Your task to perform on an android device: turn vacation reply on in the gmail app Image 0: 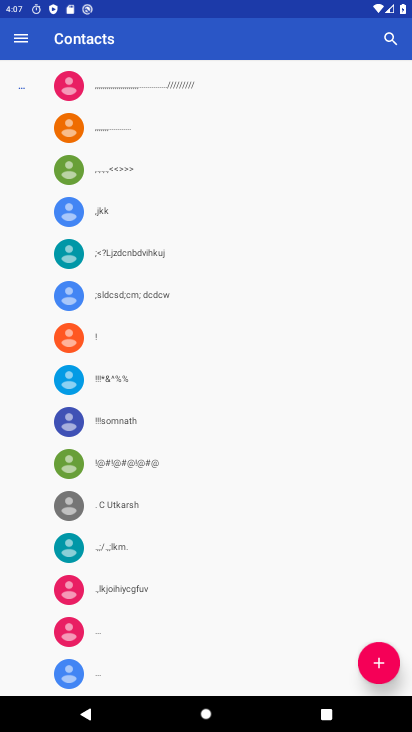
Step 0: press home button
Your task to perform on an android device: turn vacation reply on in the gmail app Image 1: 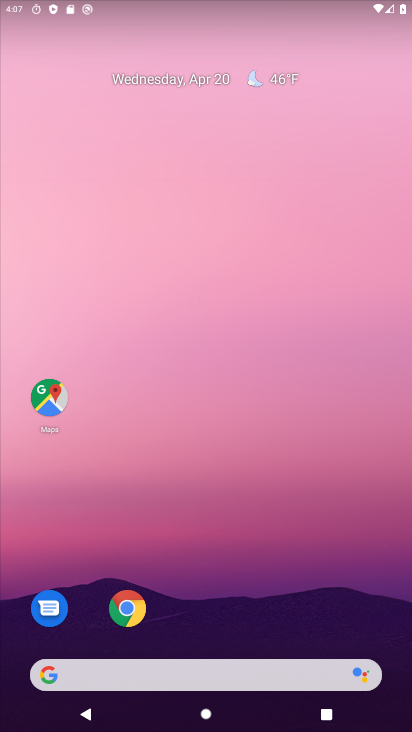
Step 1: drag from (228, 642) to (101, 13)
Your task to perform on an android device: turn vacation reply on in the gmail app Image 2: 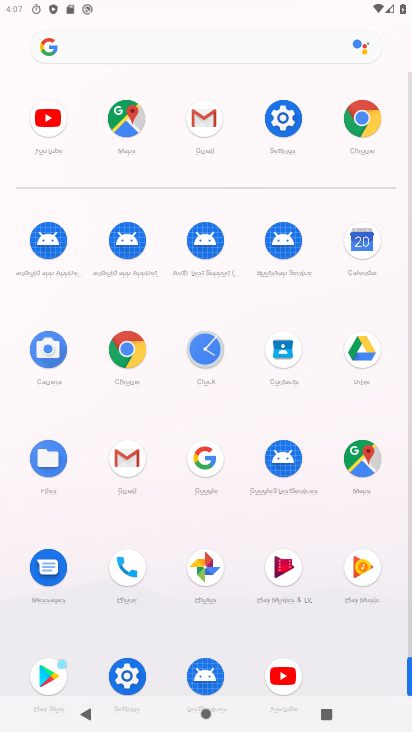
Step 2: click (124, 455)
Your task to perform on an android device: turn vacation reply on in the gmail app Image 3: 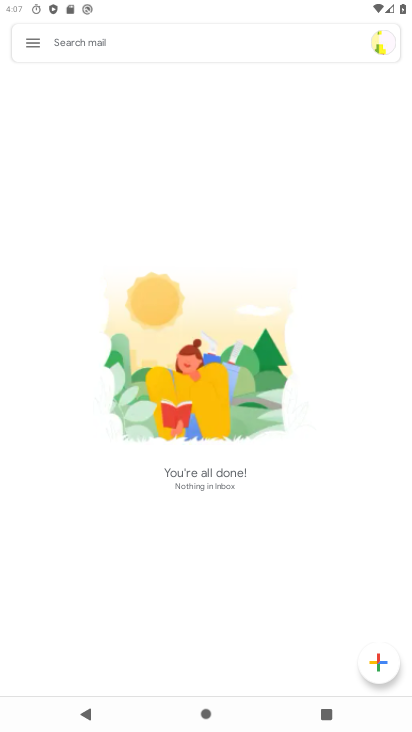
Step 3: click (34, 46)
Your task to perform on an android device: turn vacation reply on in the gmail app Image 4: 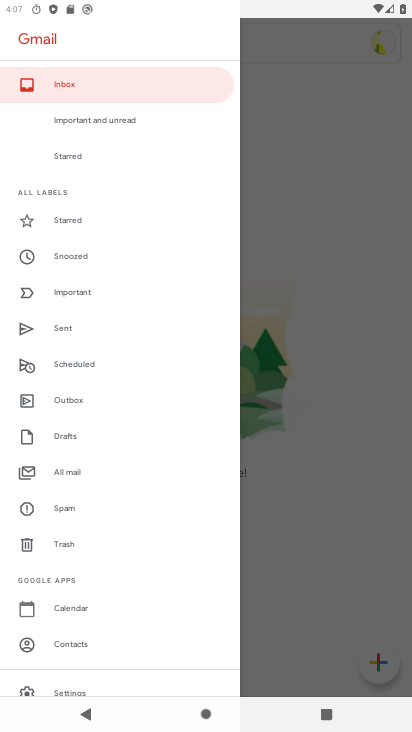
Step 4: click (63, 683)
Your task to perform on an android device: turn vacation reply on in the gmail app Image 5: 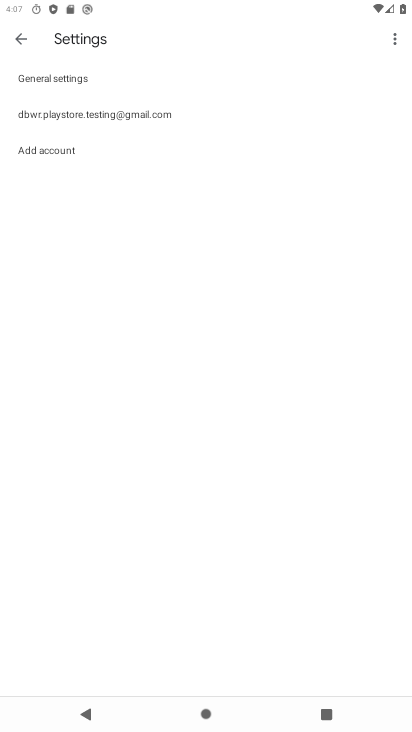
Step 5: click (51, 106)
Your task to perform on an android device: turn vacation reply on in the gmail app Image 6: 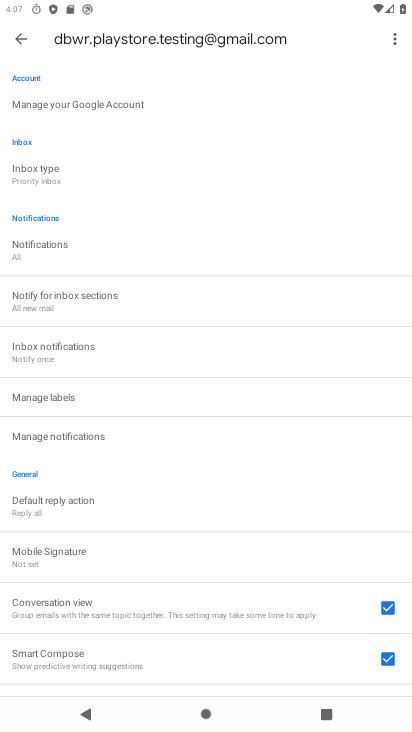
Step 6: drag from (164, 645) to (143, 319)
Your task to perform on an android device: turn vacation reply on in the gmail app Image 7: 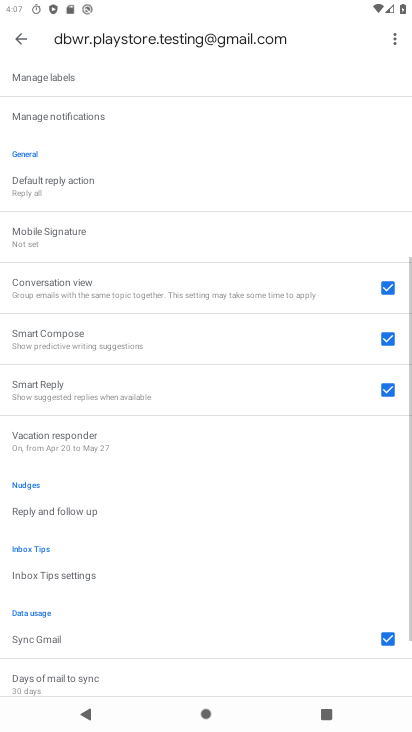
Step 7: click (103, 439)
Your task to perform on an android device: turn vacation reply on in the gmail app Image 8: 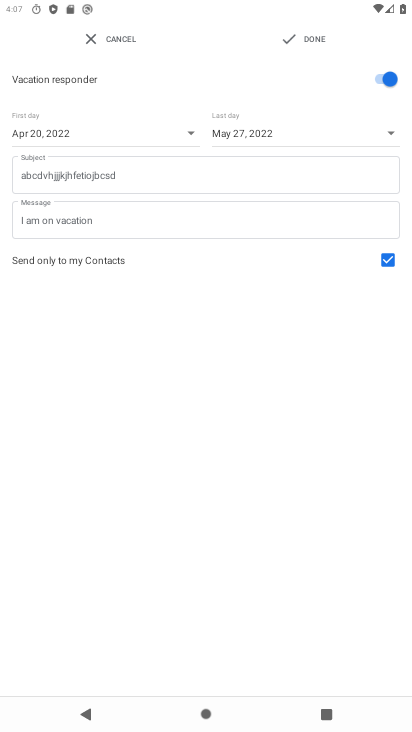
Step 8: click (295, 29)
Your task to perform on an android device: turn vacation reply on in the gmail app Image 9: 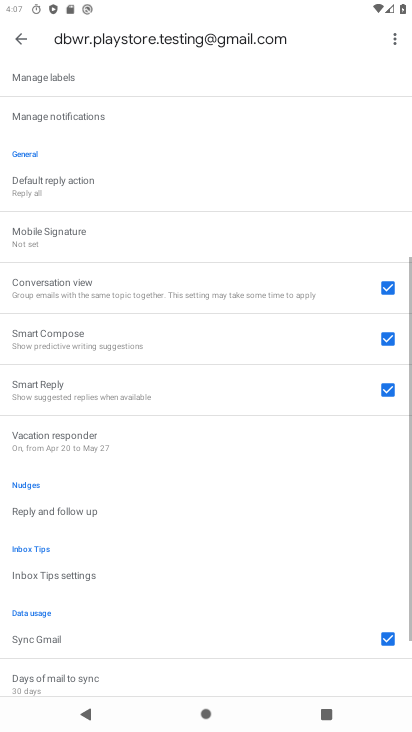
Step 9: task complete